Your task to perform on an android device: turn on airplane mode Image 0: 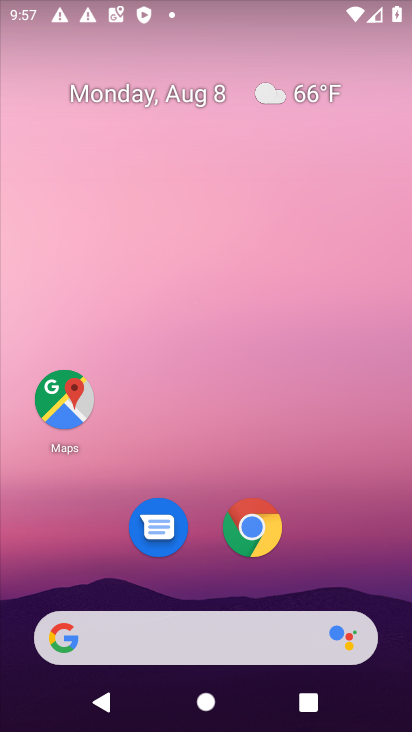
Step 0: drag from (395, 705) to (372, 103)
Your task to perform on an android device: turn on airplane mode Image 1: 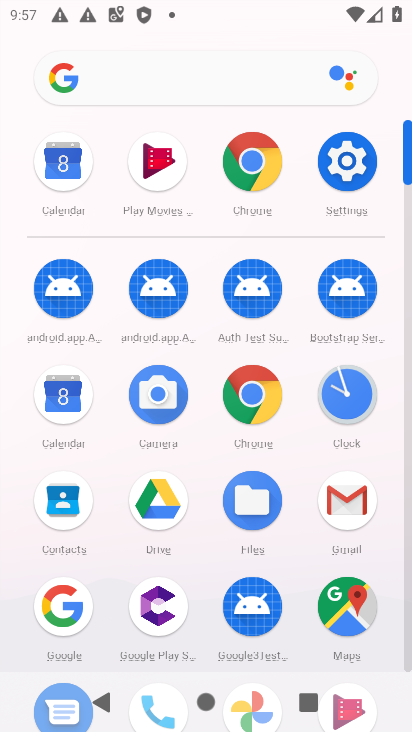
Step 1: click (348, 160)
Your task to perform on an android device: turn on airplane mode Image 2: 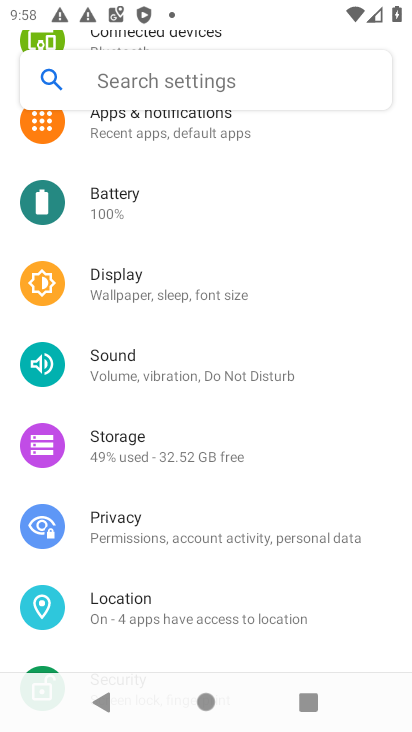
Step 2: drag from (301, 201) to (312, 522)
Your task to perform on an android device: turn on airplane mode Image 3: 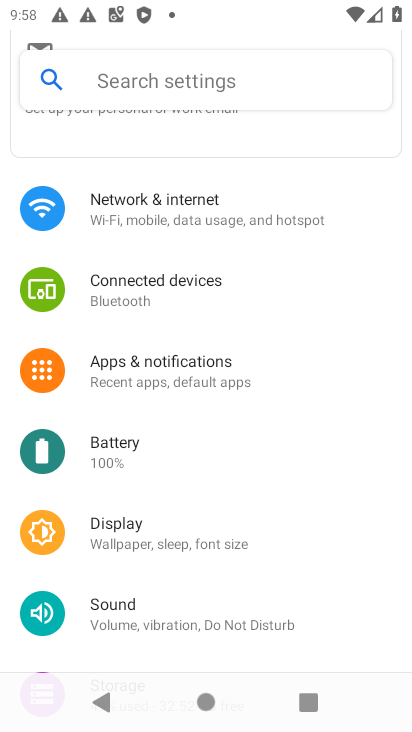
Step 3: click (149, 205)
Your task to perform on an android device: turn on airplane mode Image 4: 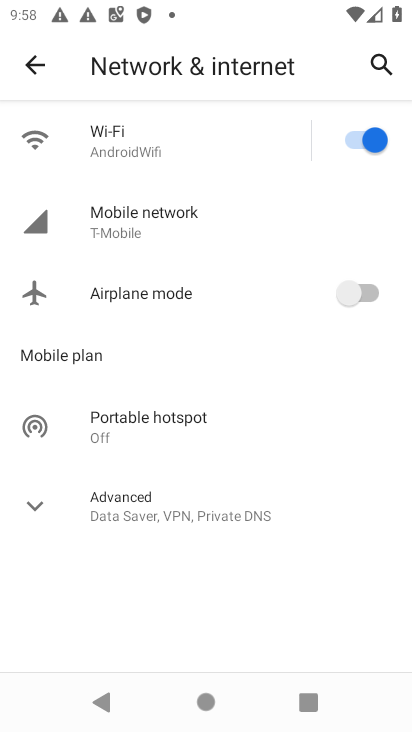
Step 4: click (362, 293)
Your task to perform on an android device: turn on airplane mode Image 5: 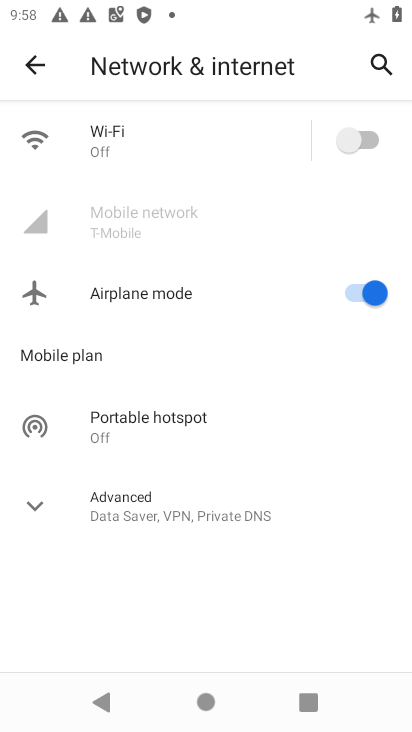
Step 5: task complete